Your task to perform on an android device: Open Maps and search for coffee Image 0: 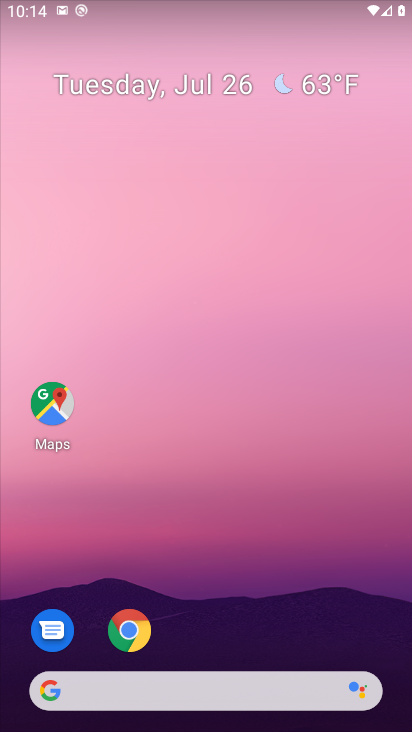
Step 0: press home button
Your task to perform on an android device: Open Maps and search for coffee Image 1: 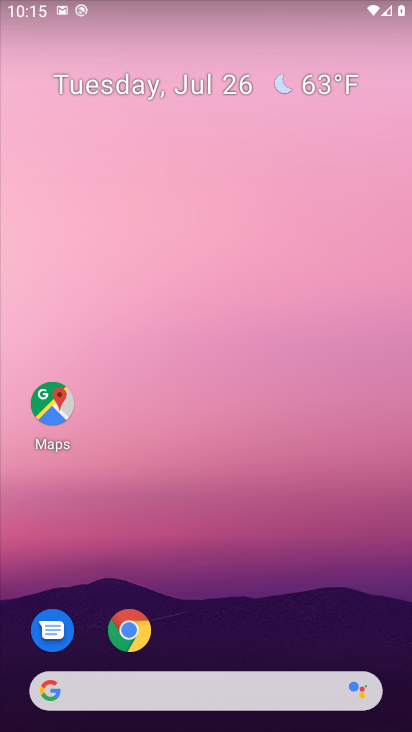
Step 1: click (53, 399)
Your task to perform on an android device: Open Maps and search for coffee Image 2: 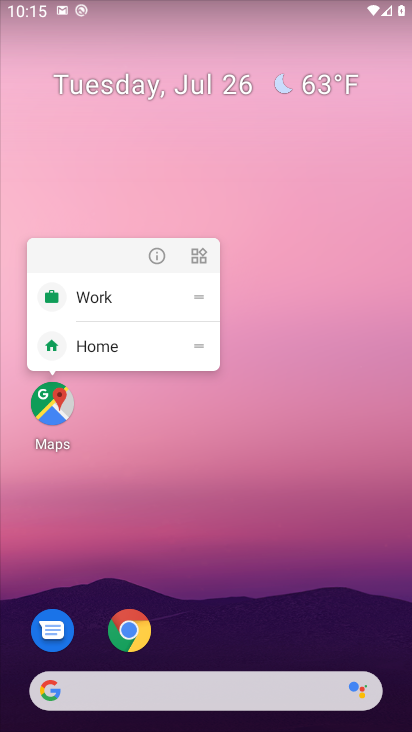
Step 2: click (54, 403)
Your task to perform on an android device: Open Maps and search for coffee Image 3: 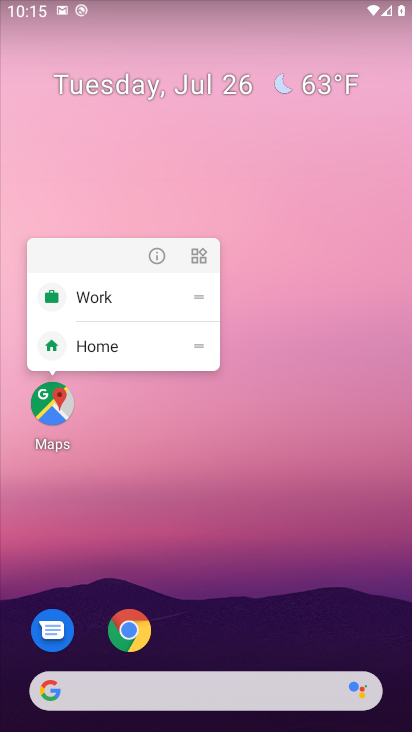
Step 3: click (51, 397)
Your task to perform on an android device: Open Maps and search for coffee Image 4: 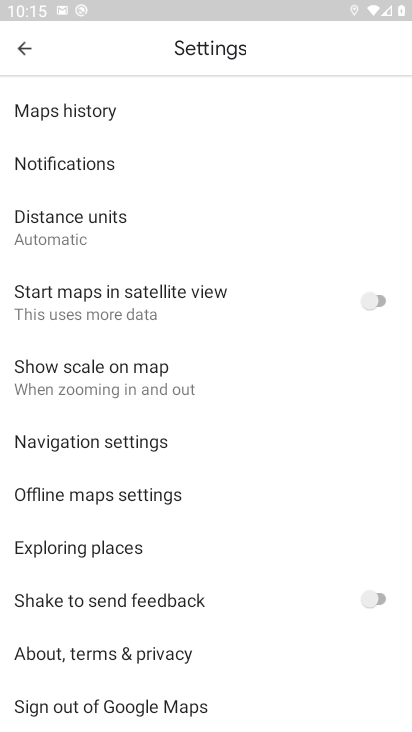
Step 4: click (28, 50)
Your task to perform on an android device: Open Maps and search for coffee Image 5: 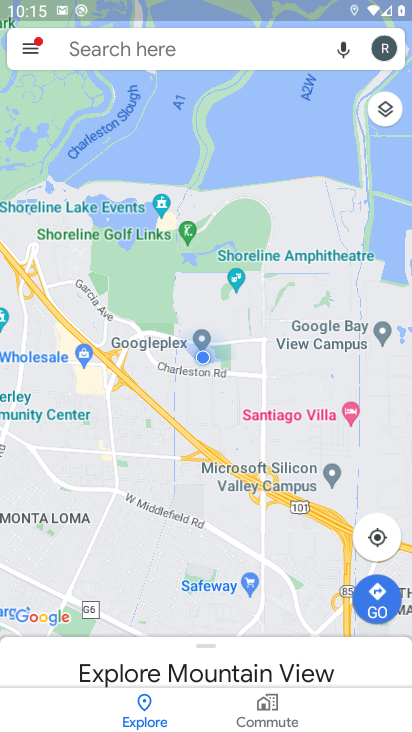
Step 5: click (135, 48)
Your task to perform on an android device: Open Maps and search for coffee Image 6: 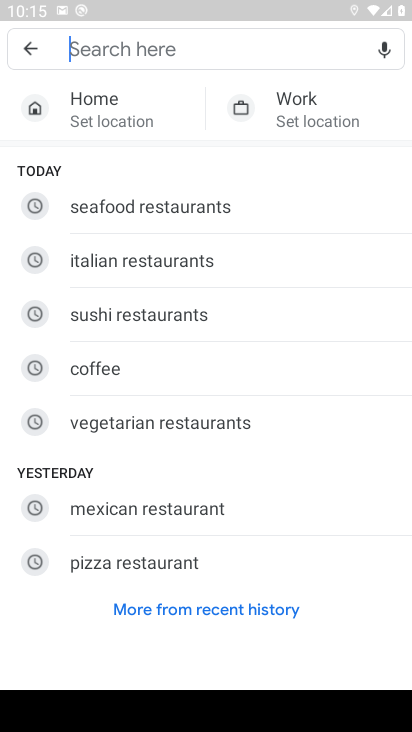
Step 6: click (139, 363)
Your task to perform on an android device: Open Maps and search for coffee Image 7: 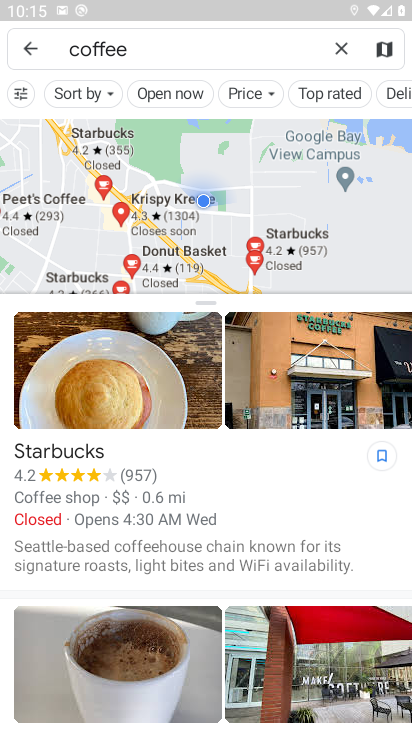
Step 7: task complete